Your task to perform on an android device: check data usage Image 0: 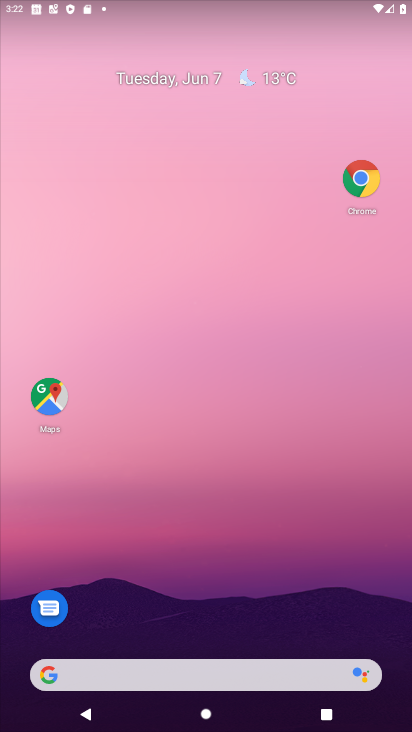
Step 0: drag from (152, 623) to (229, 129)
Your task to perform on an android device: check data usage Image 1: 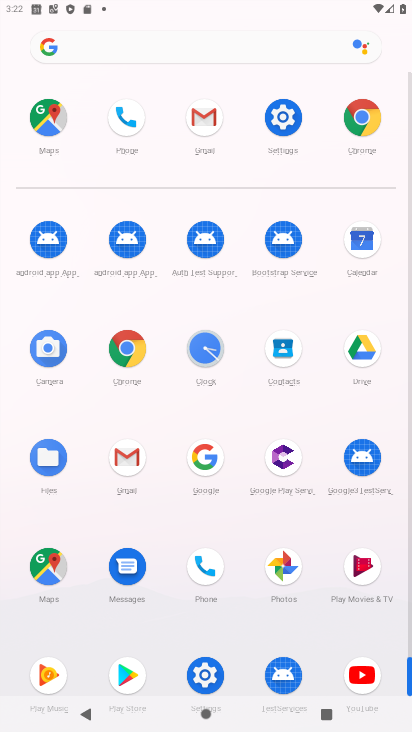
Step 1: drag from (158, 663) to (230, 358)
Your task to perform on an android device: check data usage Image 2: 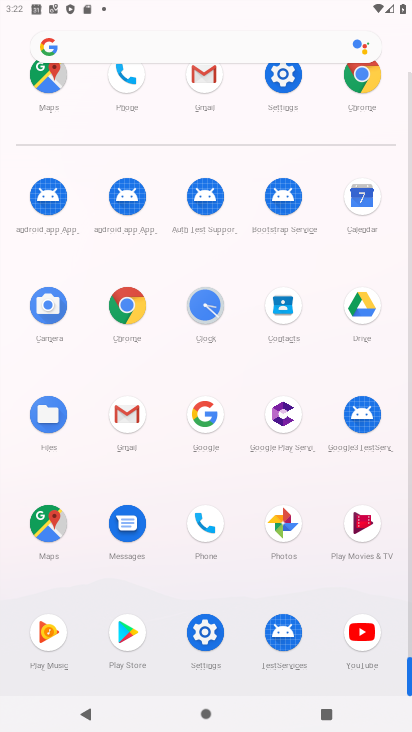
Step 2: click (206, 624)
Your task to perform on an android device: check data usage Image 3: 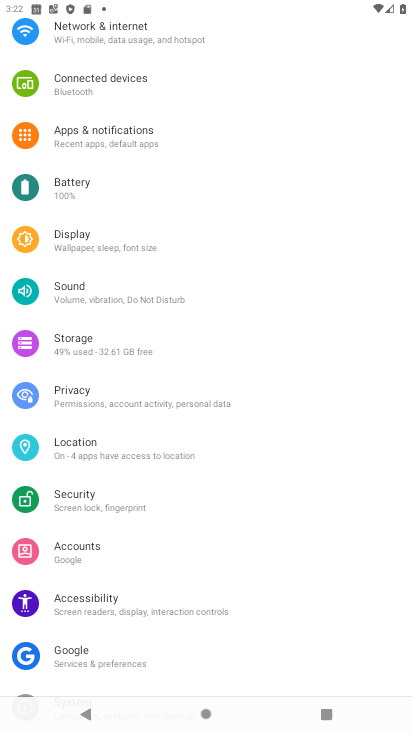
Step 3: drag from (137, 670) to (200, 705)
Your task to perform on an android device: check data usage Image 4: 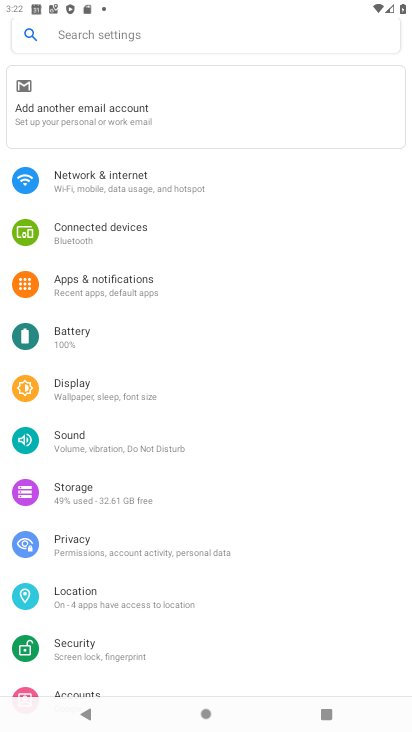
Step 4: click (174, 196)
Your task to perform on an android device: check data usage Image 5: 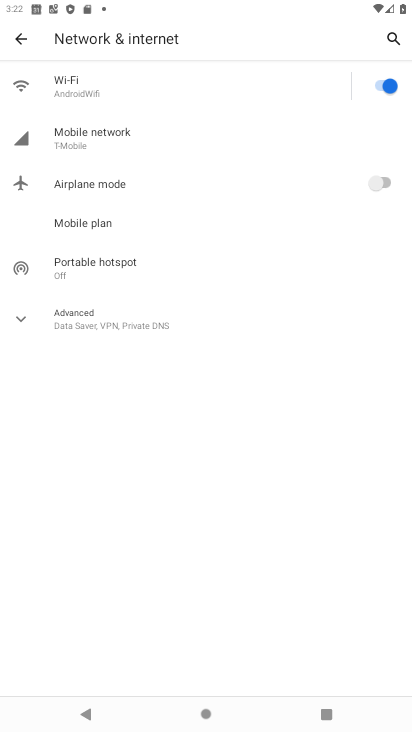
Step 5: click (174, 143)
Your task to perform on an android device: check data usage Image 6: 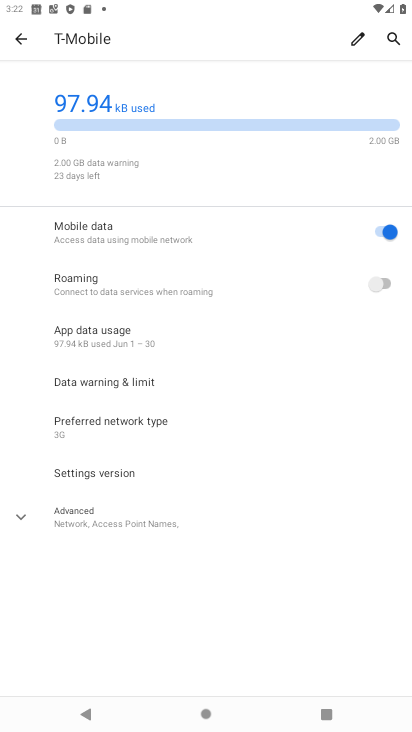
Step 6: click (150, 347)
Your task to perform on an android device: check data usage Image 7: 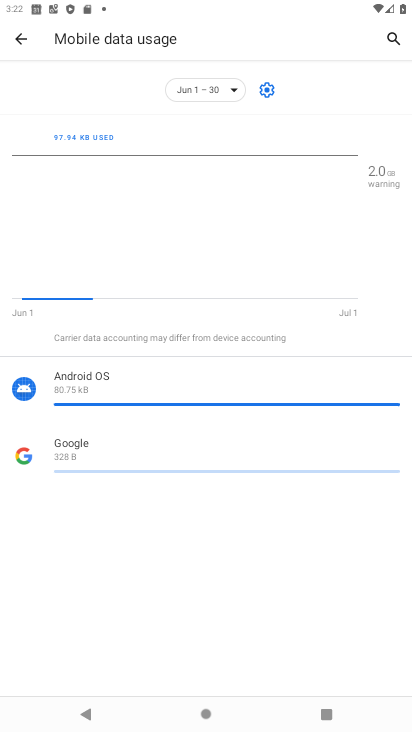
Step 7: task complete